Your task to perform on an android device: Open the web browser Image 0: 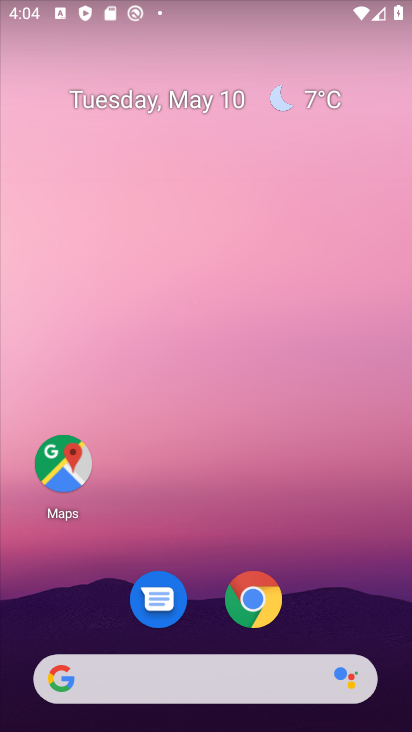
Step 0: drag from (272, 627) to (337, 226)
Your task to perform on an android device: Open the web browser Image 1: 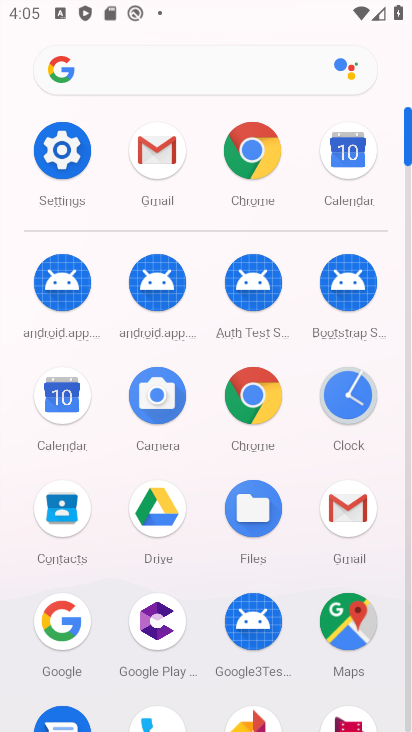
Step 1: click (253, 163)
Your task to perform on an android device: Open the web browser Image 2: 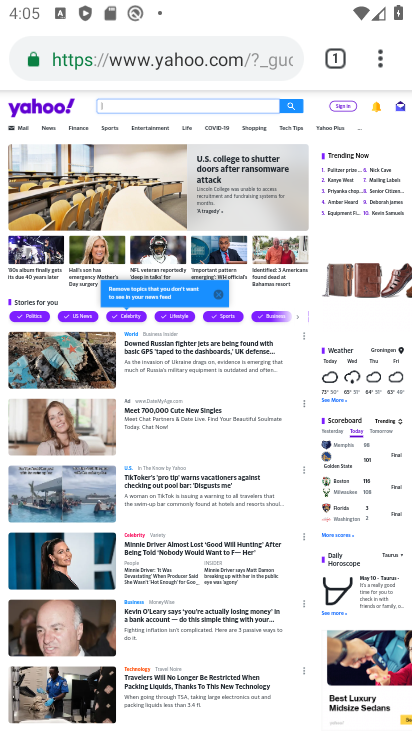
Step 2: task complete